Your task to perform on an android device: Open battery settings Image 0: 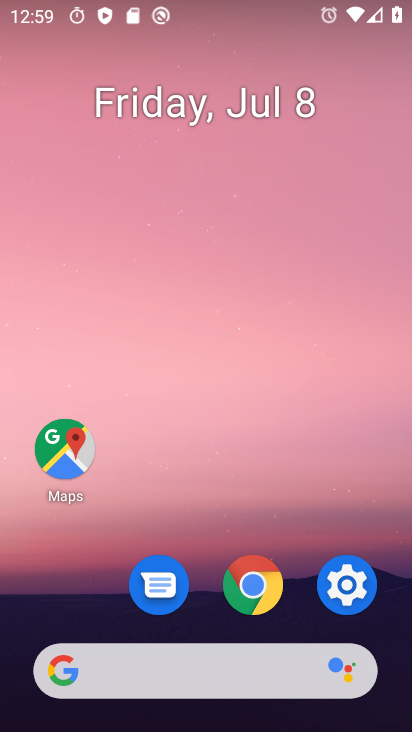
Step 0: click (336, 596)
Your task to perform on an android device: Open battery settings Image 1: 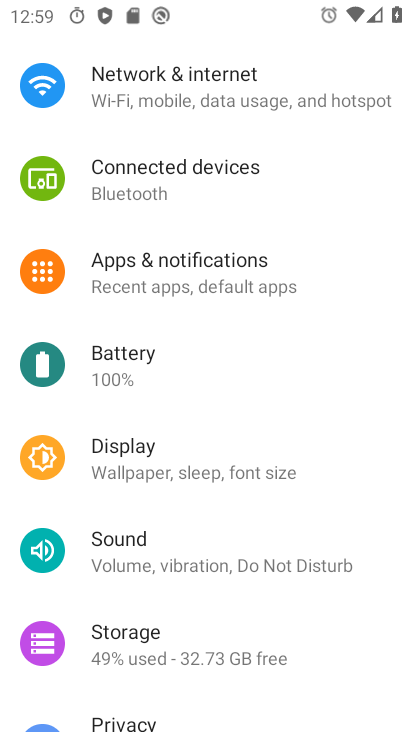
Step 1: click (186, 354)
Your task to perform on an android device: Open battery settings Image 2: 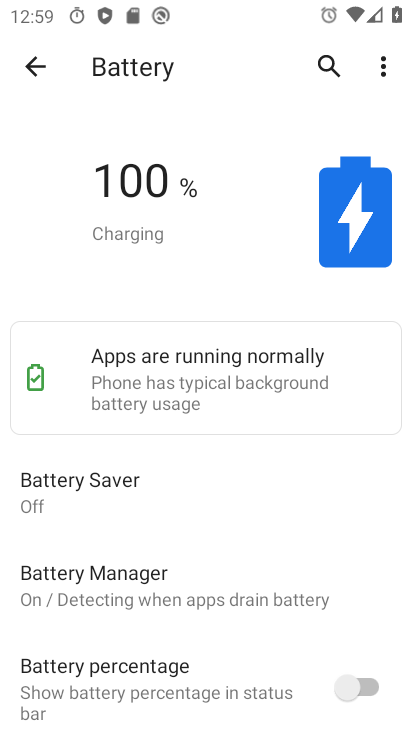
Step 2: task complete